Your task to perform on an android device: Go to Amazon Image 0: 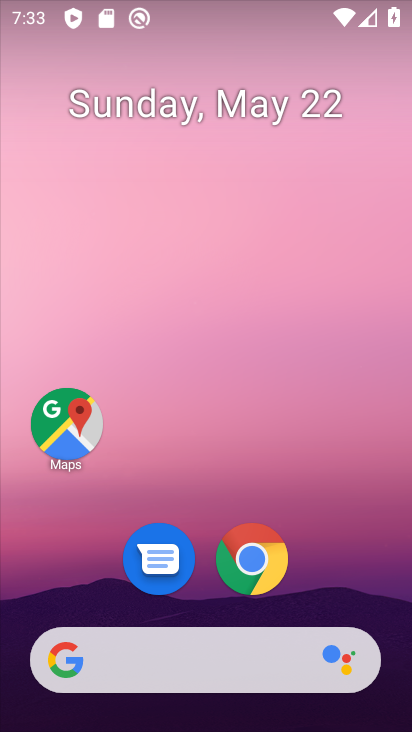
Step 0: click (262, 556)
Your task to perform on an android device: Go to Amazon Image 1: 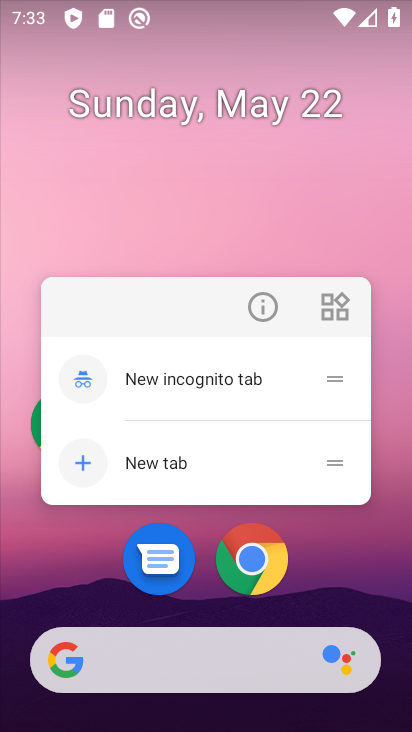
Step 1: click (262, 556)
Your task to perform on an android device: Go to Amazon Image 2: 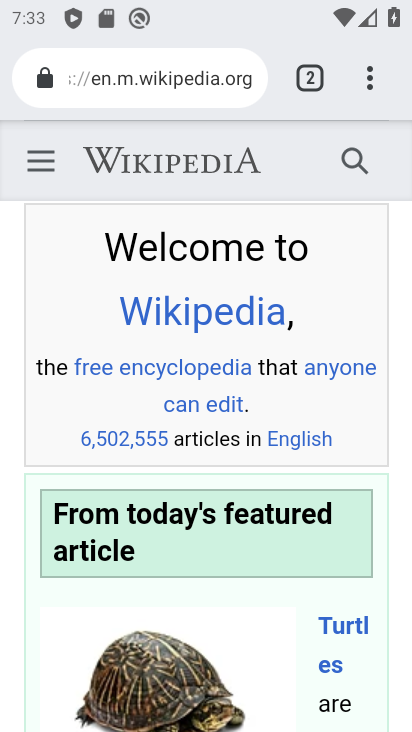
Step 2: click (308, 75)
Your task to perform on an android device: Go to Amazon Image 3: 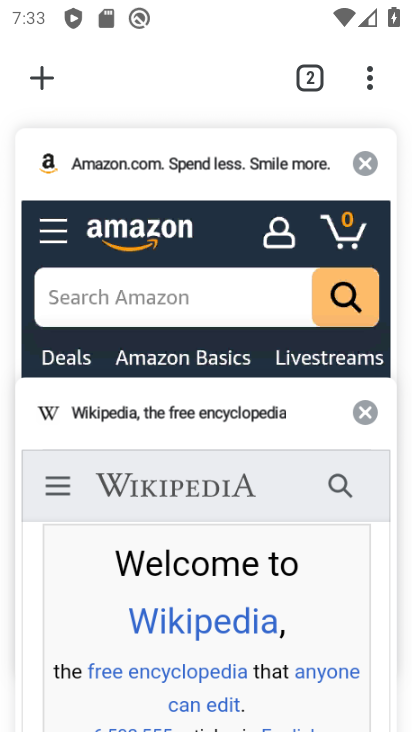
Step 3: click (268, 306)
Your task to perform on an android device: Go to Amazon Image 4: 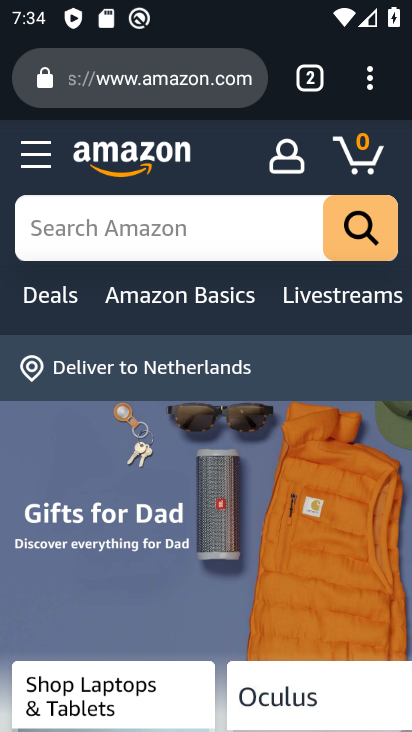
Step 4: task complete